Your task to perform on an android device: Open the phone app and click the voicemail tab. Image 0: 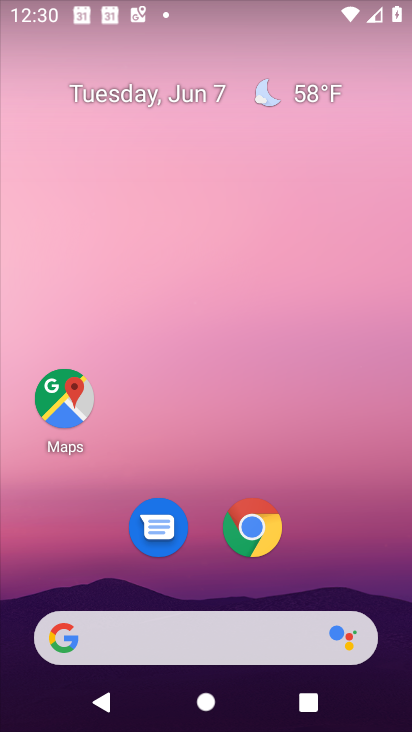
Step 0: drag from (265, 682) to (246, 72)
Your task to perform on an android device: Open the phone app and click the voicemail tab. Image 1: 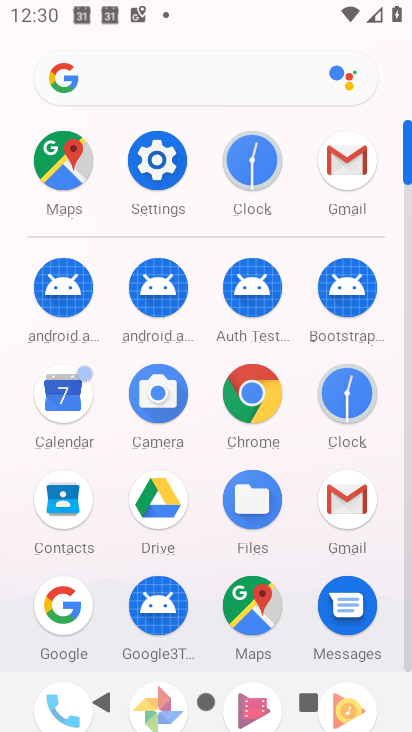
Step 1: drag from (245, 659) to (189, 121)
Your task to perform on an android device: Open the phone app and click the voicemail tab. Image 2: 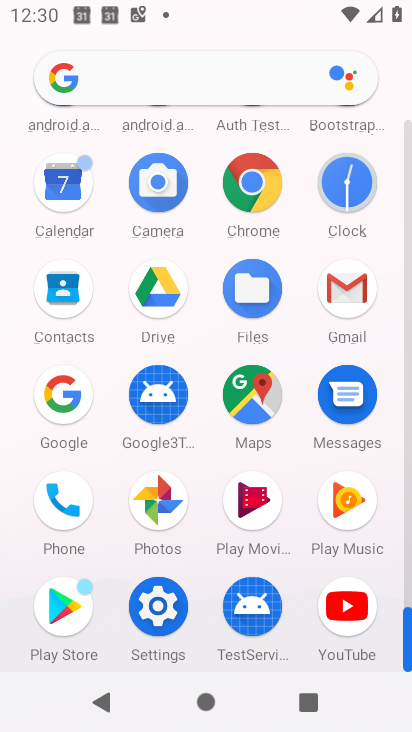
Step 2: click (68, 497)
Your task to perform on an android device: Open the phone app and click the voicemail tab. Image 3: 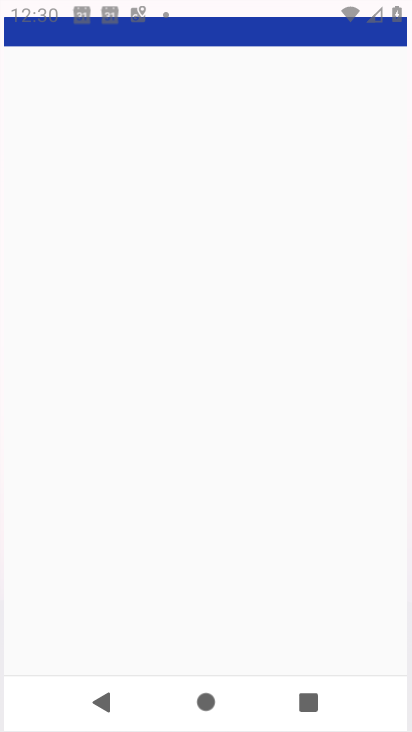
Step 3: click (61, 502)
Your task to perform on an android device: Open the phone app and click the voicemail tab. Image 4: 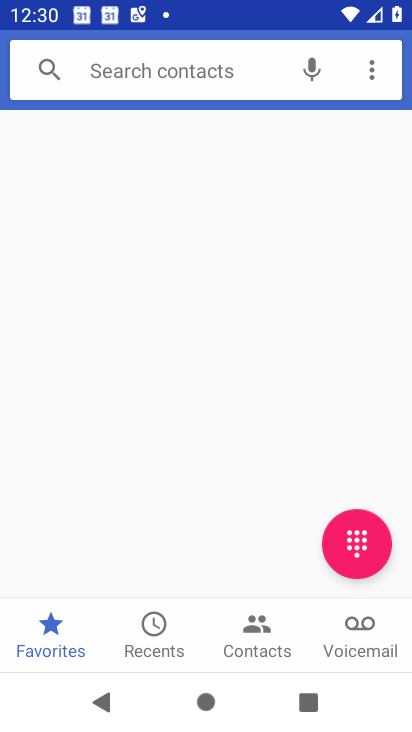
Step 4: click (61, 502)
Your task to perform on an android device: Open the phone app and click the voicemail tab. Image 5: 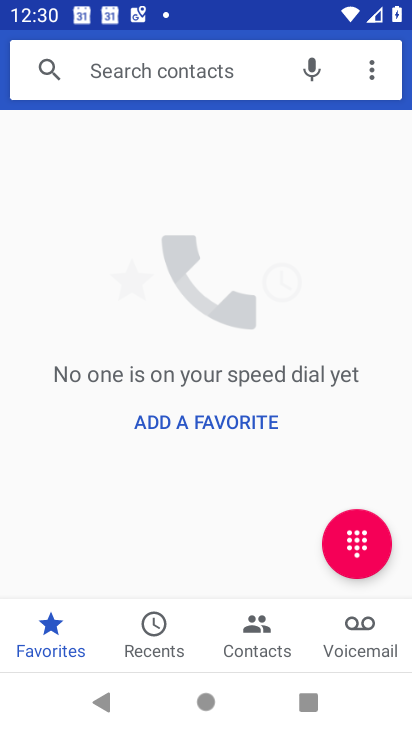
Step 5: click (354, 626)
Your task to perform on an android device: Open the phone app and click the voicemail tab. Image 6: 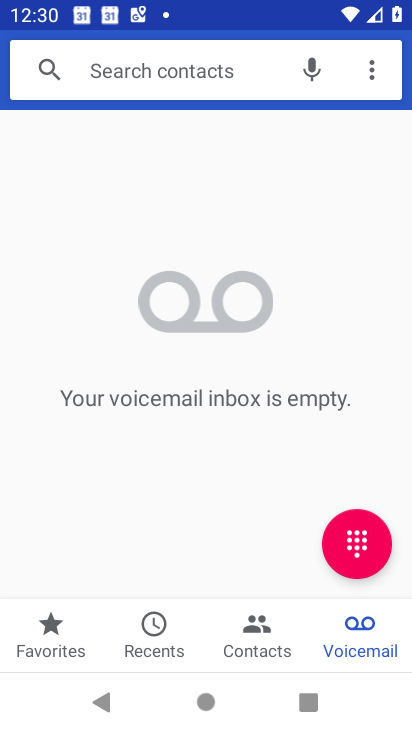
Step 6: task complete